Your task to perform on an android device: open sync settings in chrome Image 0: 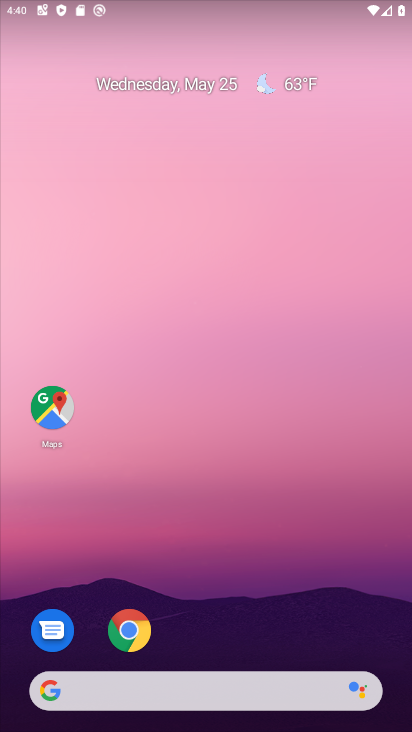
Step 0: click (121, 629)
Your task to perform on an android device: open sync settings in chrome Image 1: 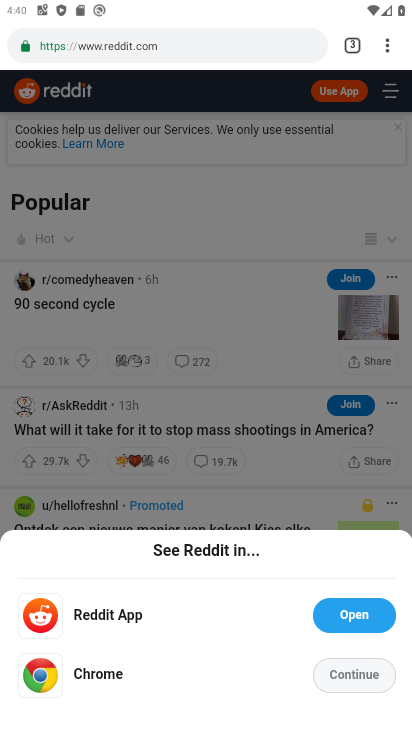
Step 1: press home button
Your task to perform on an android device: open sync settings in chrome Image 2: 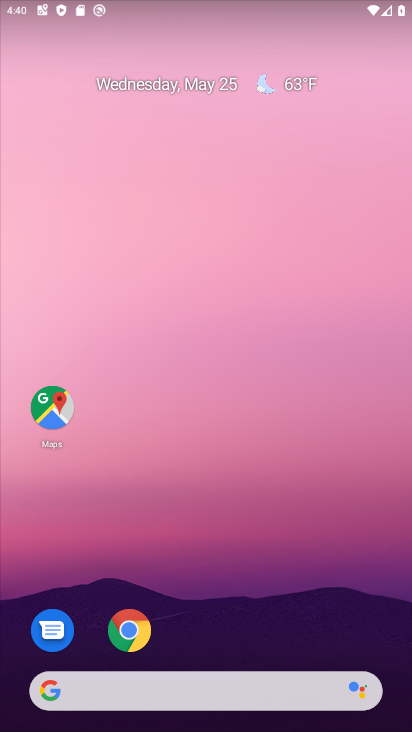
Step 2: click (130, 631)
Your task to perform on an android device: open sync settings in chrome Image 3: 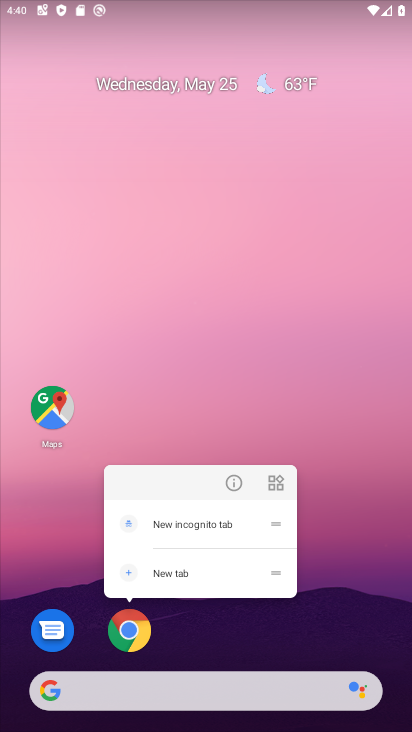
Step 3: click (132, 626)
Your task to perform on an android device: open sync settings in chrome Image 4: 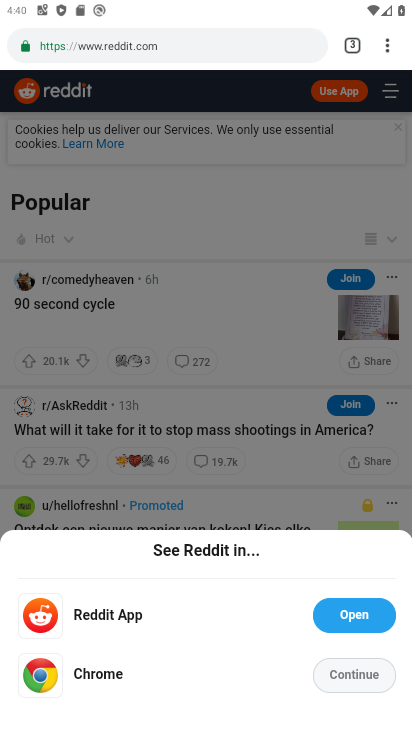
Step 4: drag from (391, 36) to (225, 499)
Your task to perform on an android device: open sync settings in chrome Image 5: 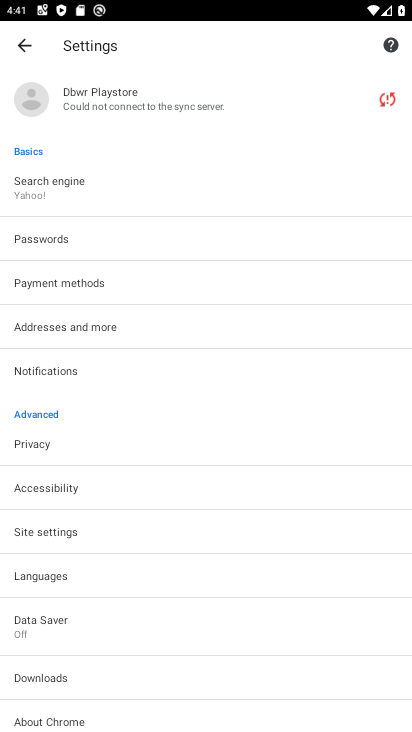
Step 5: click (125, 105)
Your task to perform on an android device: open sync settings in chrome Image 6: 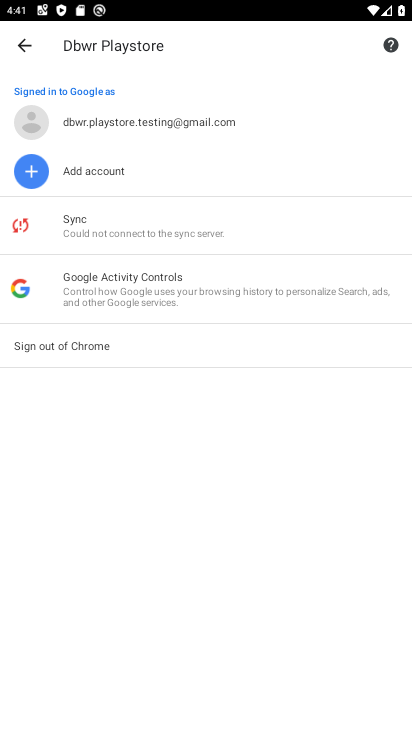
Step 6: task complete